Your task to perform on an android device: Go to CNN.com Image 0: 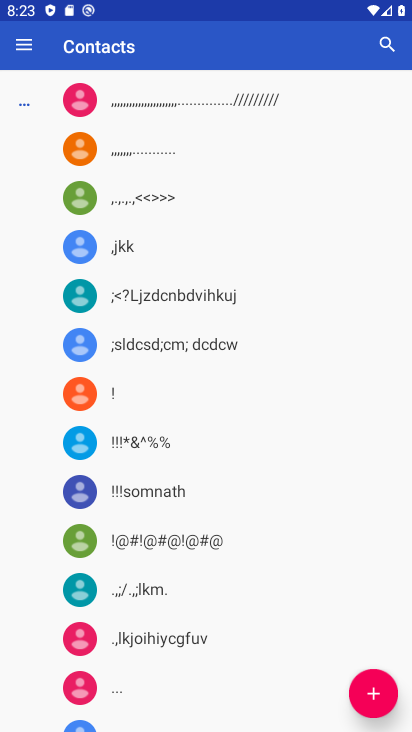
Step 0: press home button
Your task to perform on an android device: Go to CNN.com Image 1: 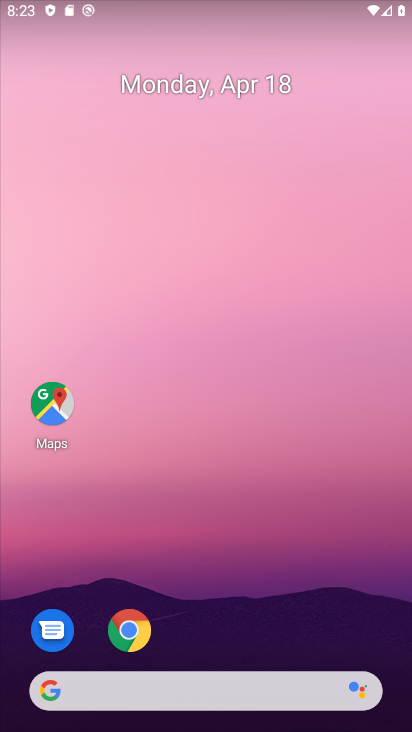
Step 1: click (137, 632)
Your task to perform on an android device: Go to CNN.com Image 2: 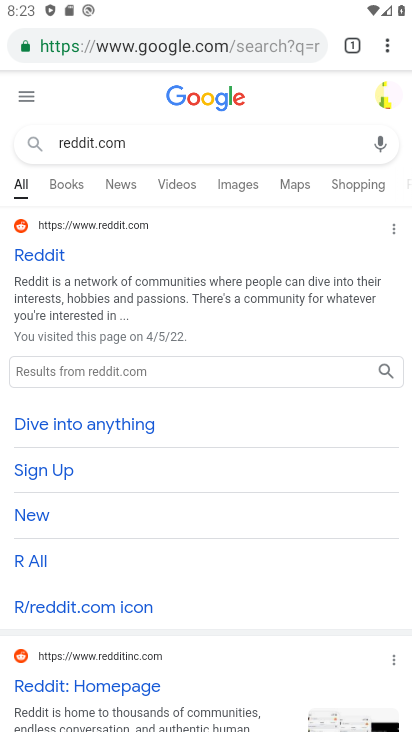
Step 2: click (192, 37)
Your task to perform on an android device: Go to CNN.com Image 3: 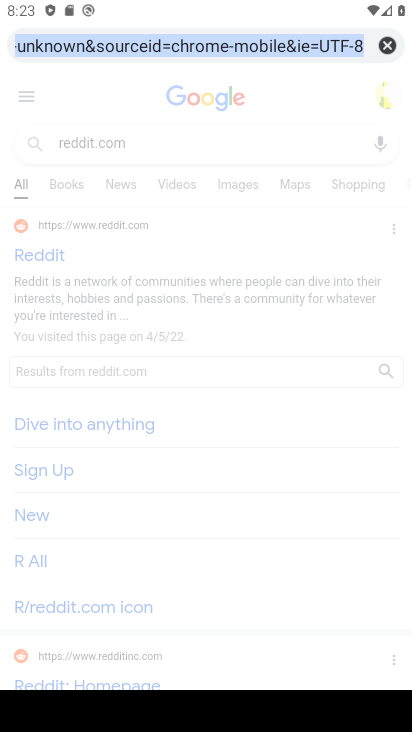
Step 3: type "CNN.com"
Your task to perform on an android device: Go to CNN.com Image 4: 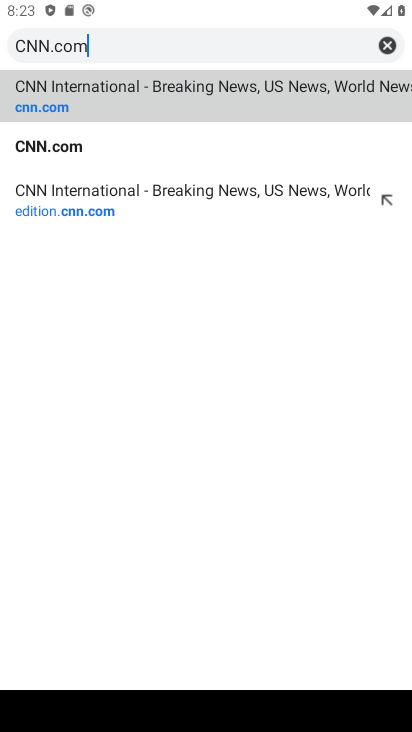
Step 4: click (88, 157)
Your task to perform on an android device: Go to CNN.com Image 5: 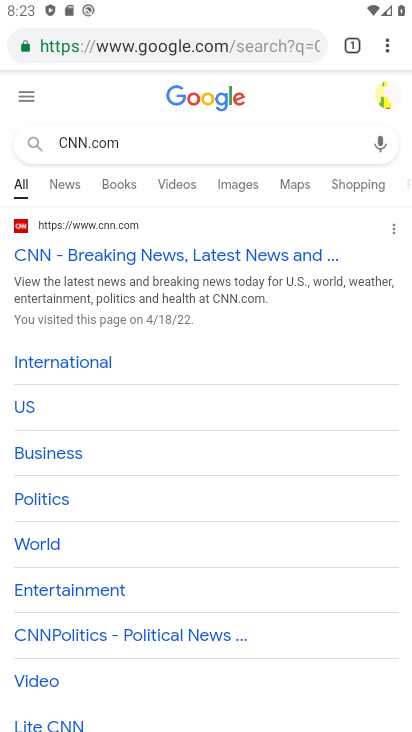
Step 5: task complete